Your task to perform on an android device: turn smart compose on in the gmail app Image 0: 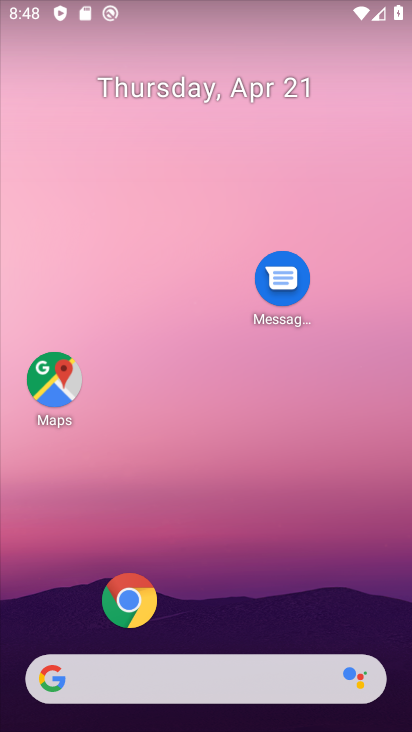
Step 0: drag from (82, 261) to (110, 176)
Your task to perform on an android device: turn smart compose on in the gmail app Image 1: 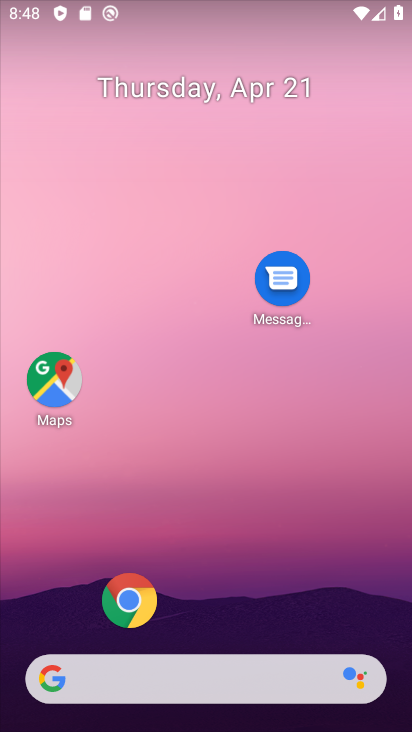
Step 1: drag from (37, 513) to (115, 240)
Your task to perform on an android device: turn smart compose on in the gmail app Image 2: 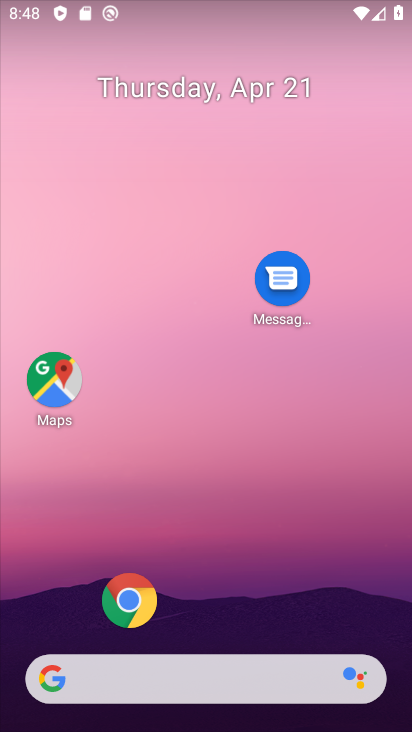
Step 2: drag from (91, 375) to (142, 261)
Your task to perform on an android device: turn smart compose on in the gmail app Image 3: 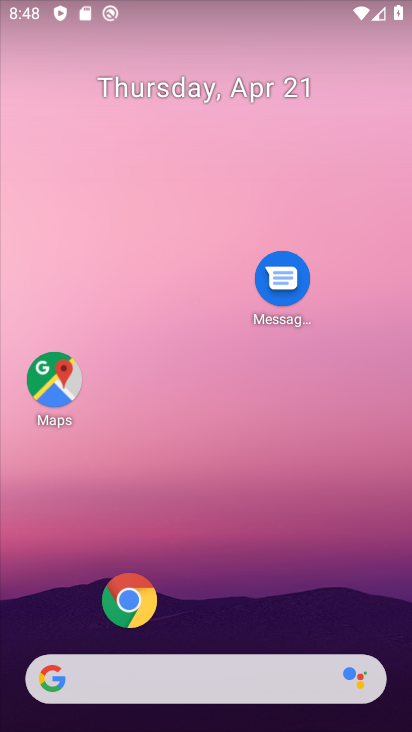
Step 3: drag from (65, 450) to (185, 200)
Your task to perform on an android device: turn smart compose on in the gmail app Image 4: 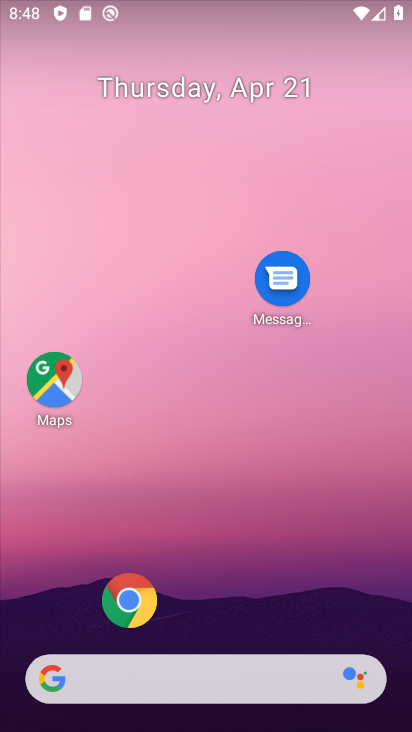
Step 4: drag from (117, 311) to (212, 127)
Your task to perform on an android device: turn smart compose on in the gmail app Image 5: 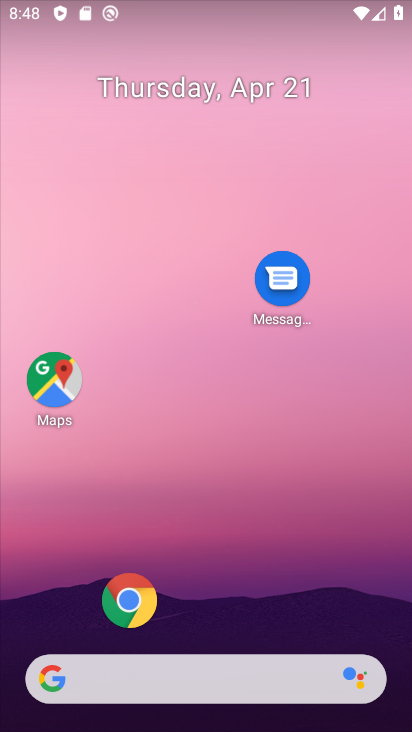
Step 5: drag from (2, 599) to (277, 193)
Your task to perform on an android device: turn smart compose on in the gmail app Image 6: 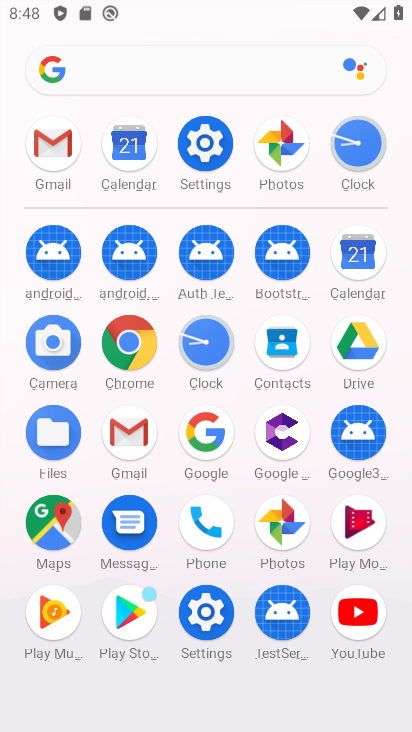
Step 6: click (44, 139)
Your task to perform on an android device: turn smart compose on in the gmail app Image 7: 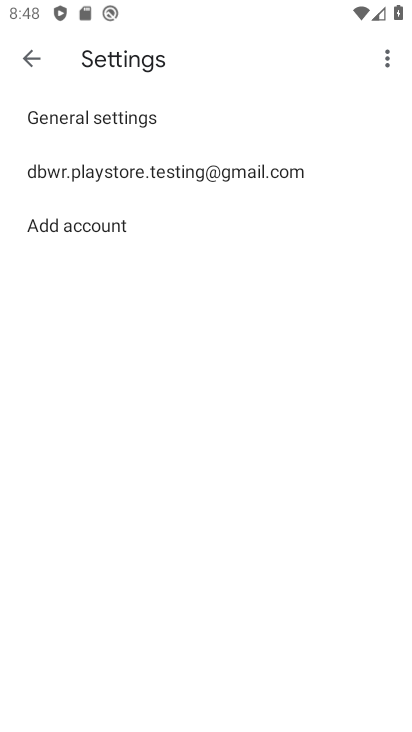
Step 7: click (88, 176)
Your task to perform on an android device: turn smart compose on in the gmail app Image 8: 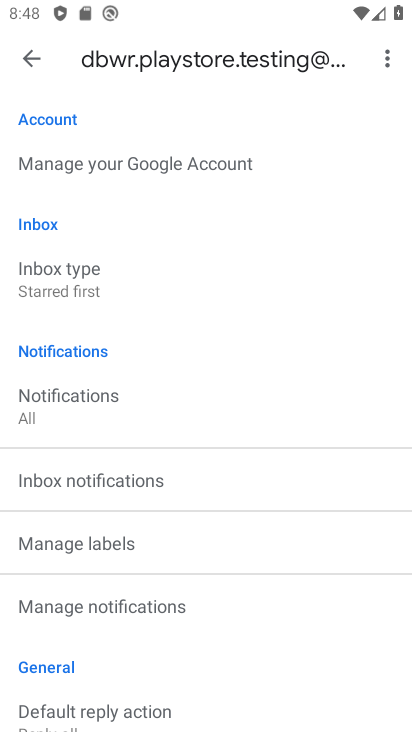
Step 8: task complete